Your task to perform on an android device: turn off airplane mode Image 0: 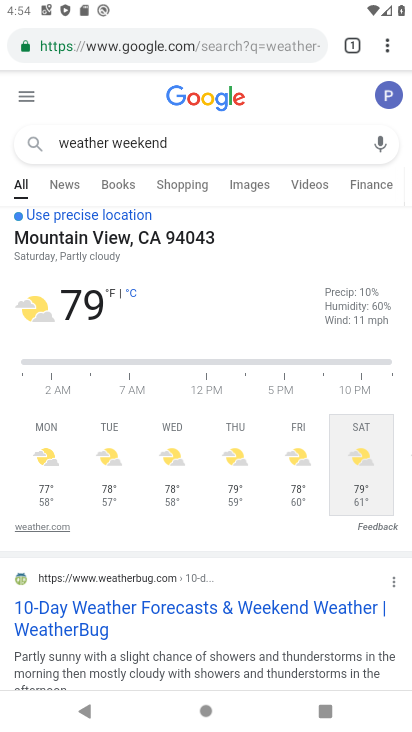
Step 0: press home button
Your task to perform on an android device: turn off airplane mode Image 1: 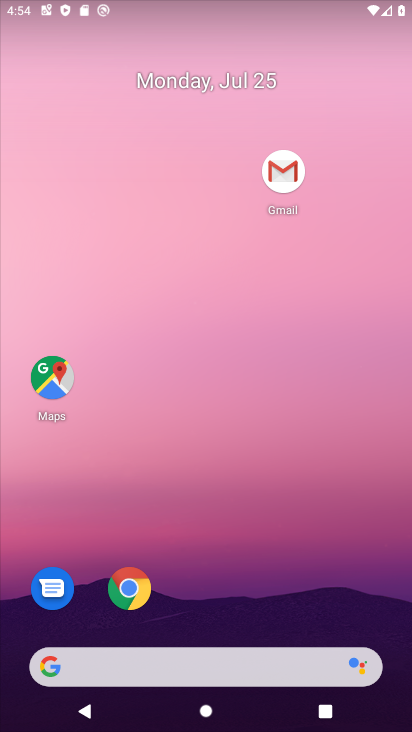
Step 1: drag from (246, 586) to (247, 168)
Your task to perform on an android device: turn off airplane mode Image 2: 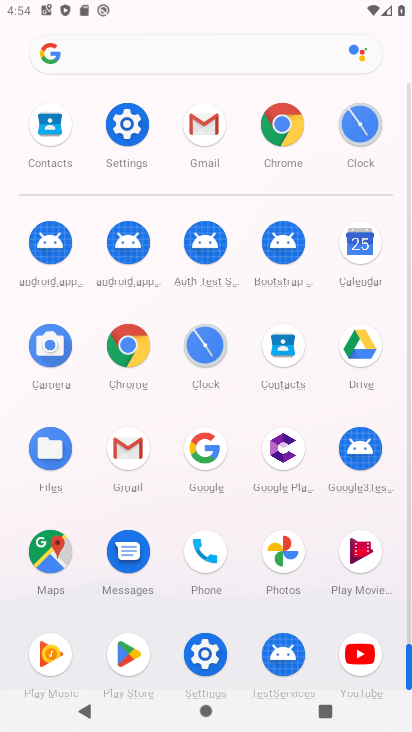
Step 2: click (130, 137)
Your task to perform on an android device: turn off airplane mode Image 3: 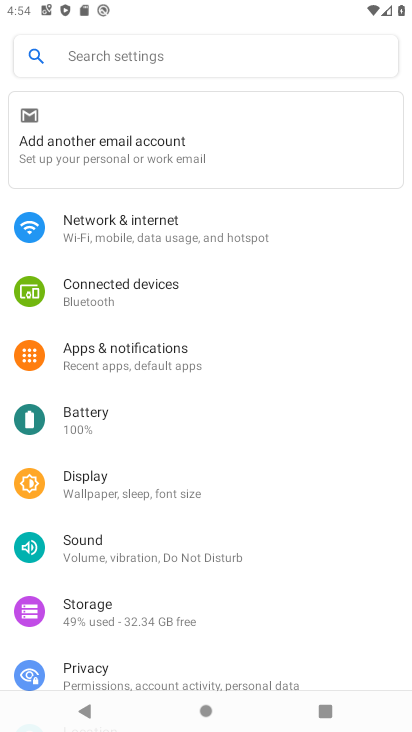
Step 3: click (163, 225)
Your task to perform on an android device: turn off airplane mode Image 4: 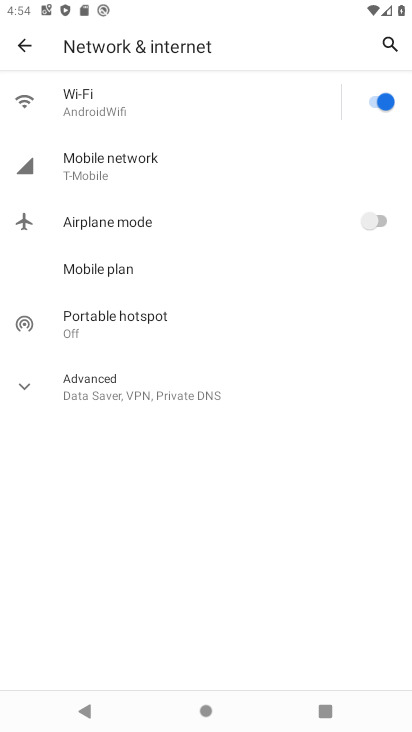
Step 4: task complete